Your task to perform on an android device: empty trash in the gmail app Image 0: 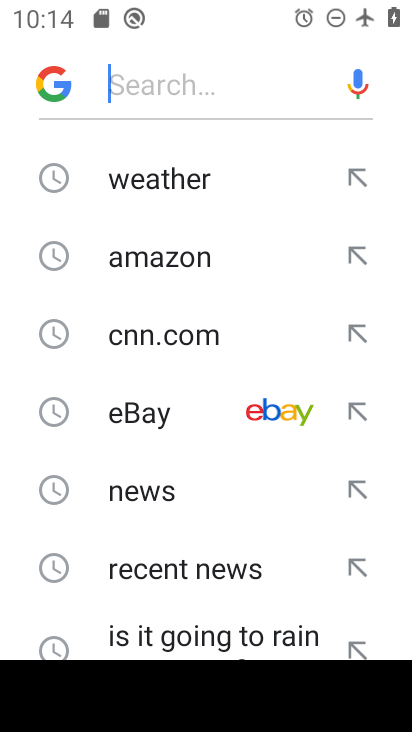
Step 0: press home button
Your task to perform on an android device: empty trash in the gmail app Image 1: 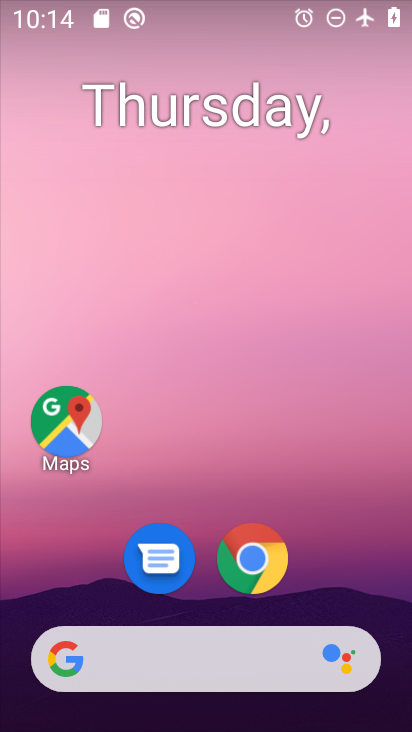
Step 1: drag from (365, 601) to (370, 4)
Your task to perform on an android device: empty trash in the gmail app Image 2: 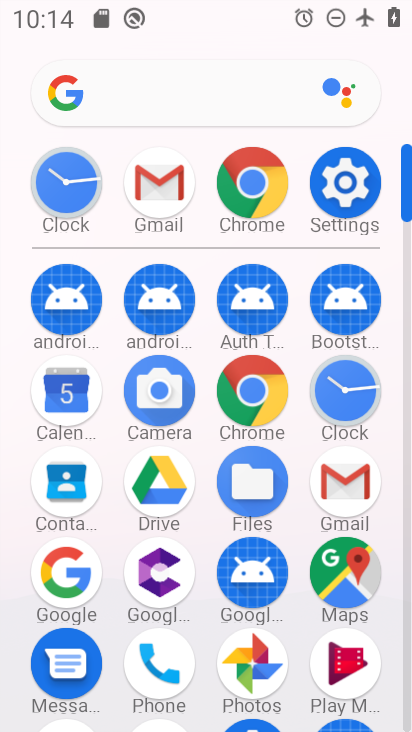
Step 2: click (339, 479)
Your task to perform on an android device: empty trash in the gmail app Image 3: 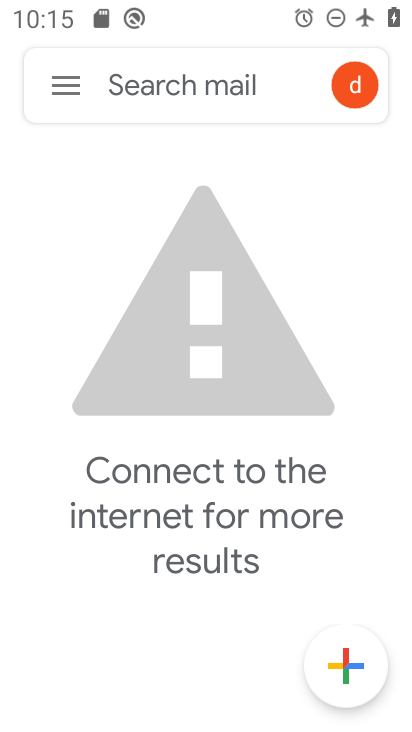
Step 3: click (63, 75)
Your task to perform on an android device: empty trash in the gmail app Image 4: 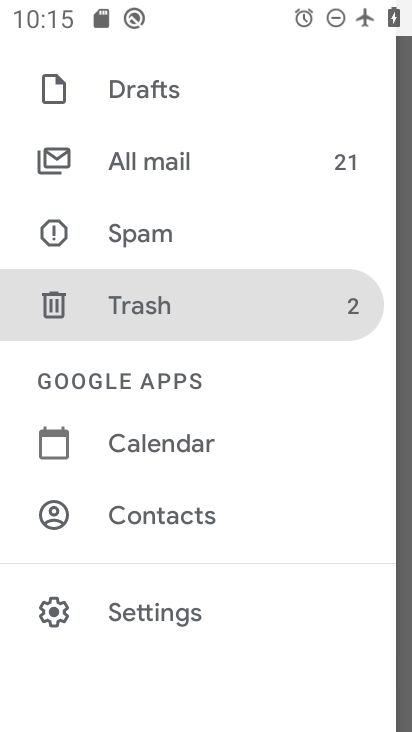
Step 4: click (161, 302)
Your task to perform on an android device: empty trash in the gmail app Image 5: 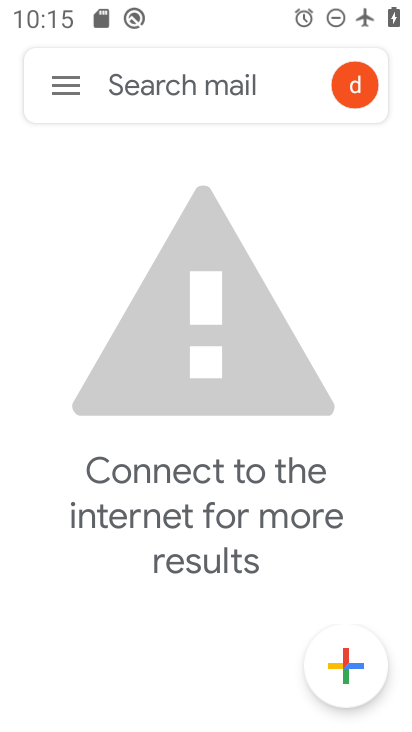
Step 5: task complete